Your task to perform on an android device: Go to Maps Image 0: 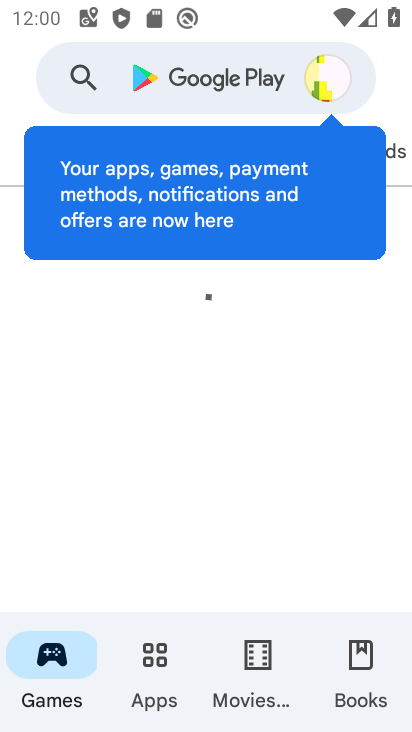
Step 0: press home button
Your task to perform on an android device: Go to Maps Image 1: 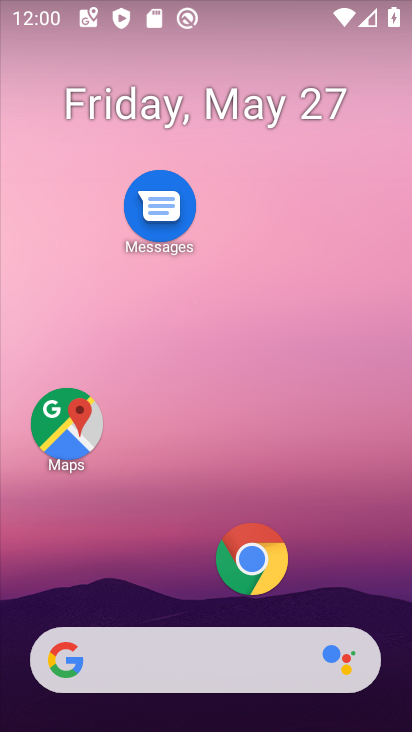
Step 1: drag from (212, 577) to (229, 44)
Your task to perform on an android device: Go to Maps Image 2: 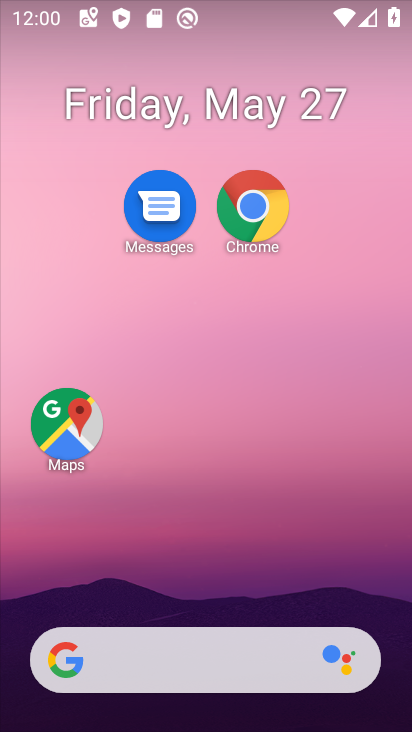
Step 2: drag from (186, 603) to (244, 87)
Your task to perform on an android device: Go to Maps Image 3: 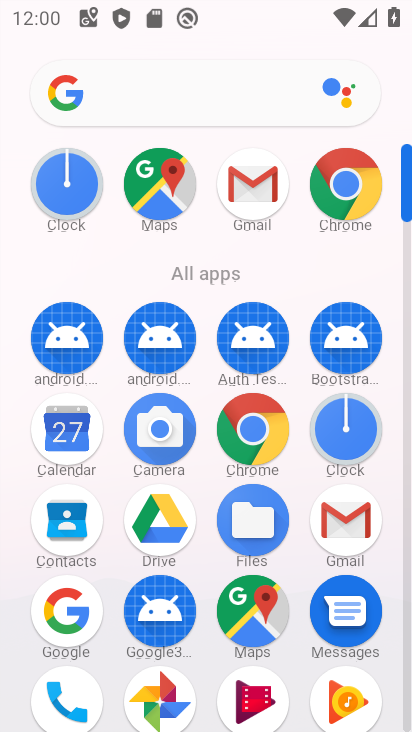
Step 3: drag from (334, 552) to (370, 97)
Your task to perform on an android device: Go to Maps Image 4: 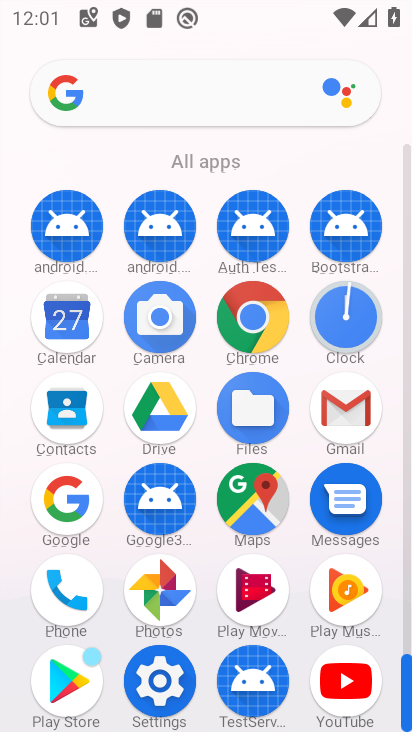
Step 4: click (256, 493)
Your task to perform on an android device: Go to Maps Image 5: 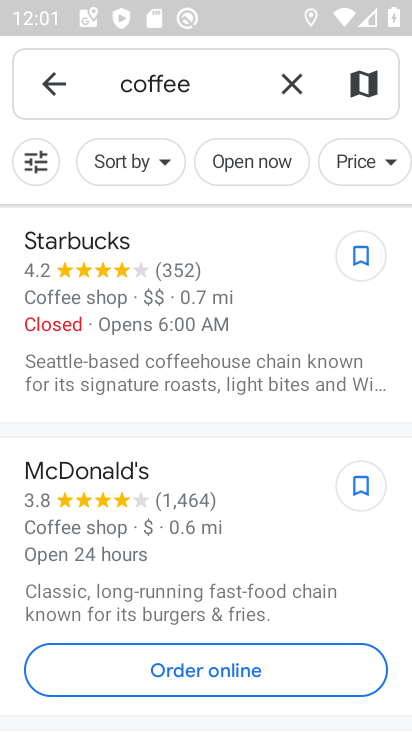
Step 5: click (287, 85)
Your task to perform on an android device: Go to Maps Image 6: 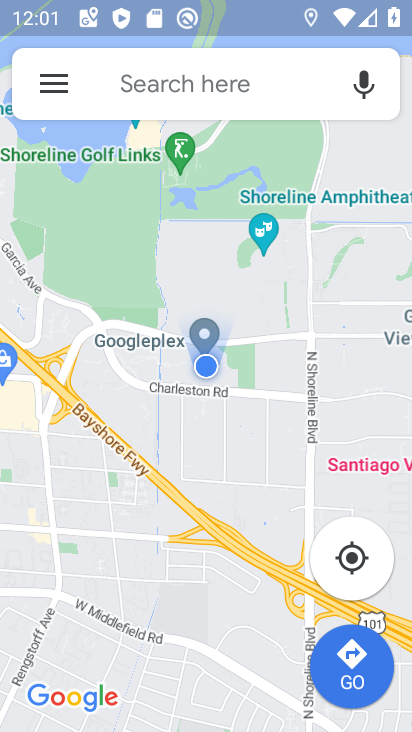
Step 6: click (338, 662)
Your task to perform on an android device: Go to Maps Image 7: 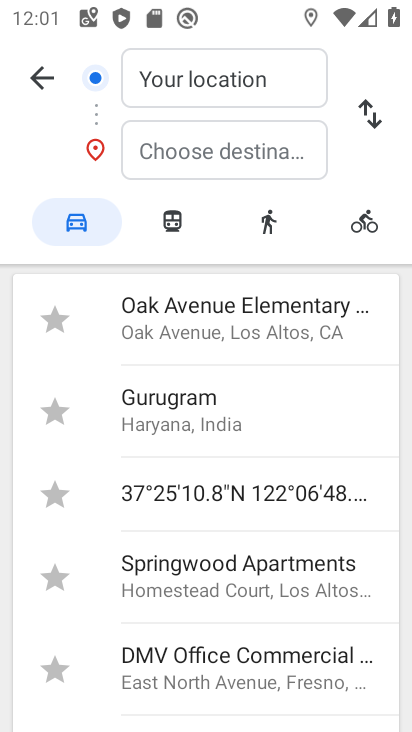
Step 7: task complete